Your task to perform on an android device: Search for hotels in Tokyo Image 0: 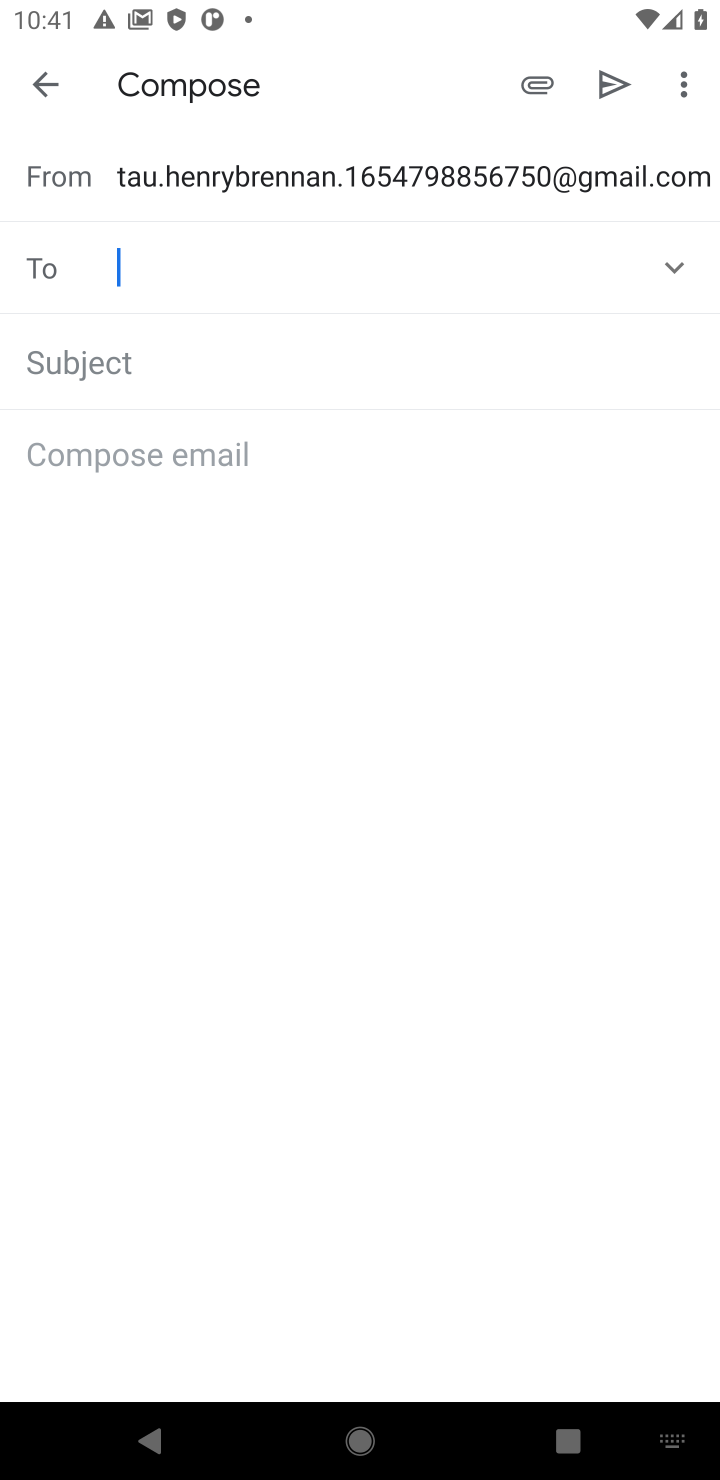
Step 0: press home button
Your task to perform on an android device: Search for hotels in Tokyo Image 1: 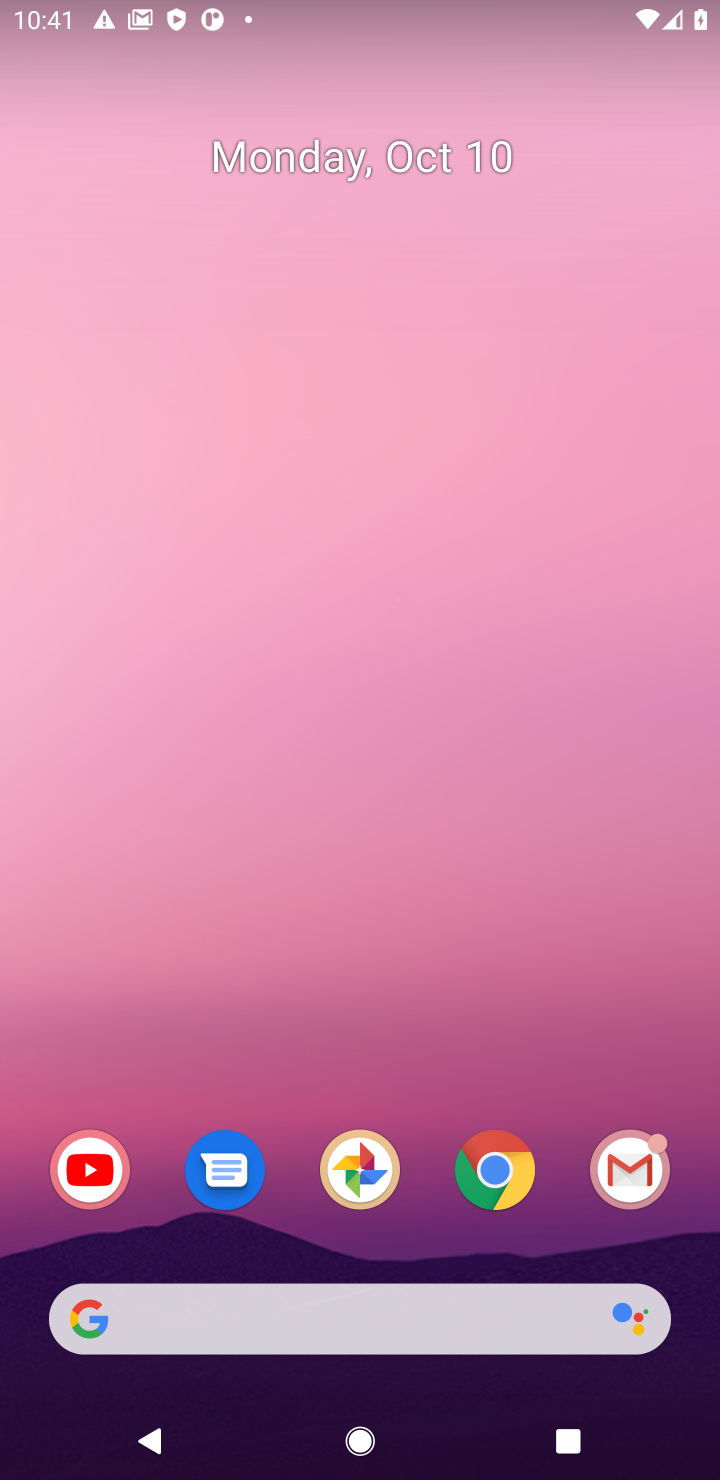
Step 1: drag from (412, 899) to (437, 32)
Your task to perform on an android device: Search for hotels in Tokyo Image 2: 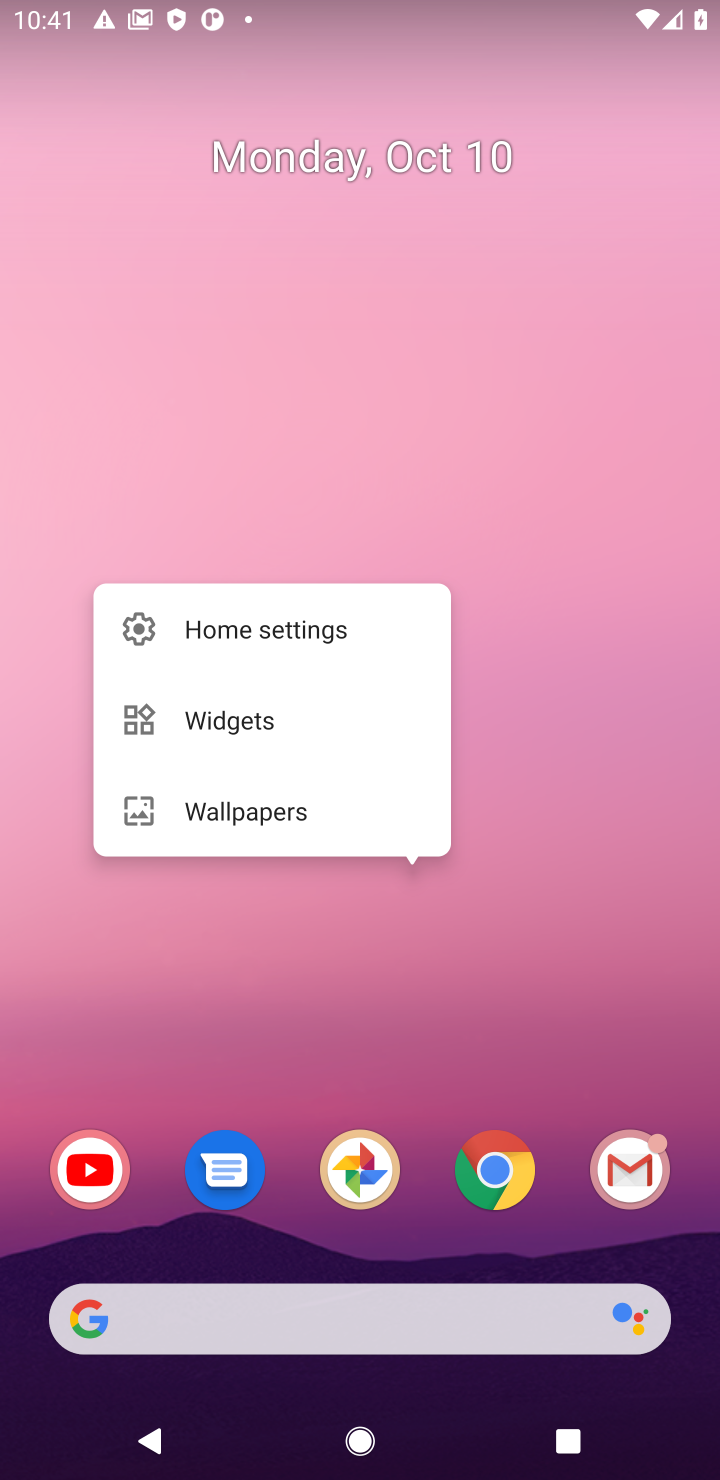
Step 2: click (491, 1201)
Your task to perform on an android device: Search for hotels in Tokyo Image 3: 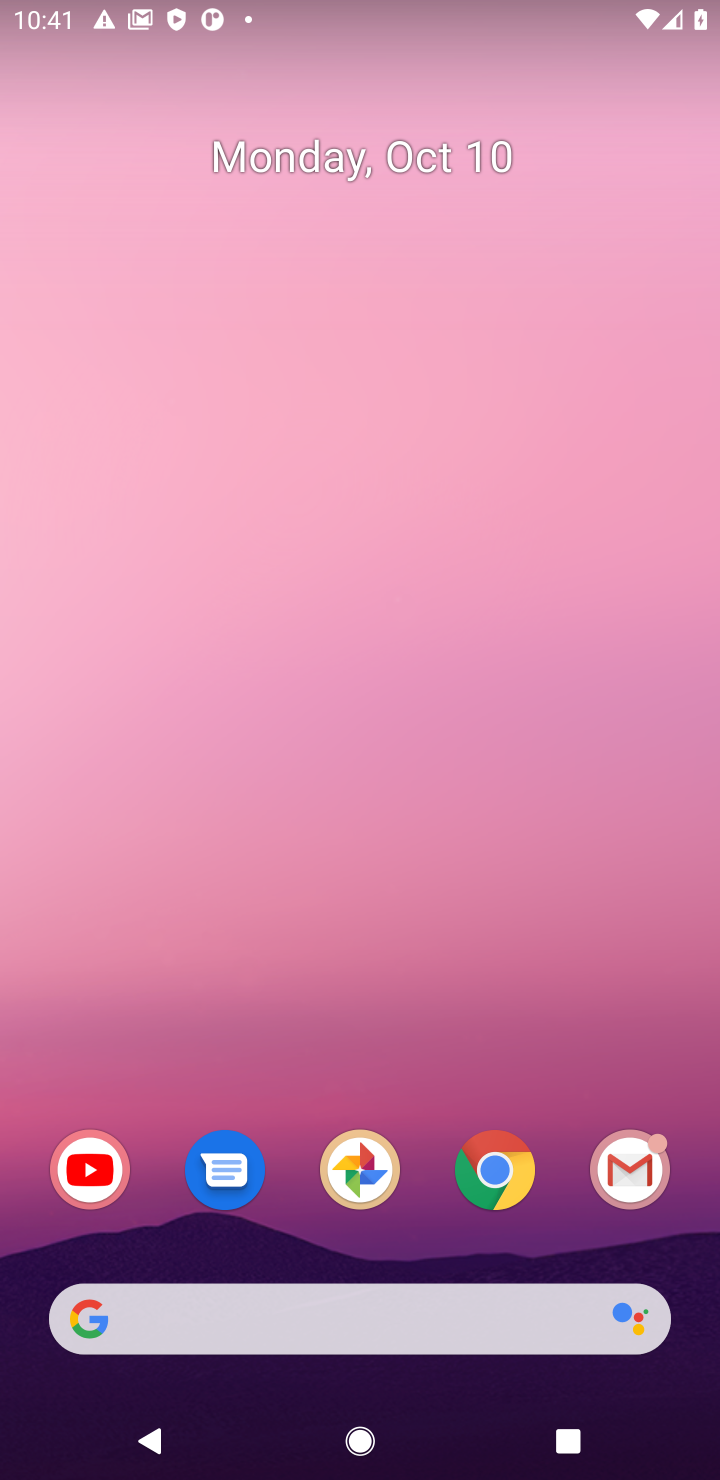
Step 3: click (492, 1202)
Your task to perform on an android device: Search for hotels in Tokyo Image 4: 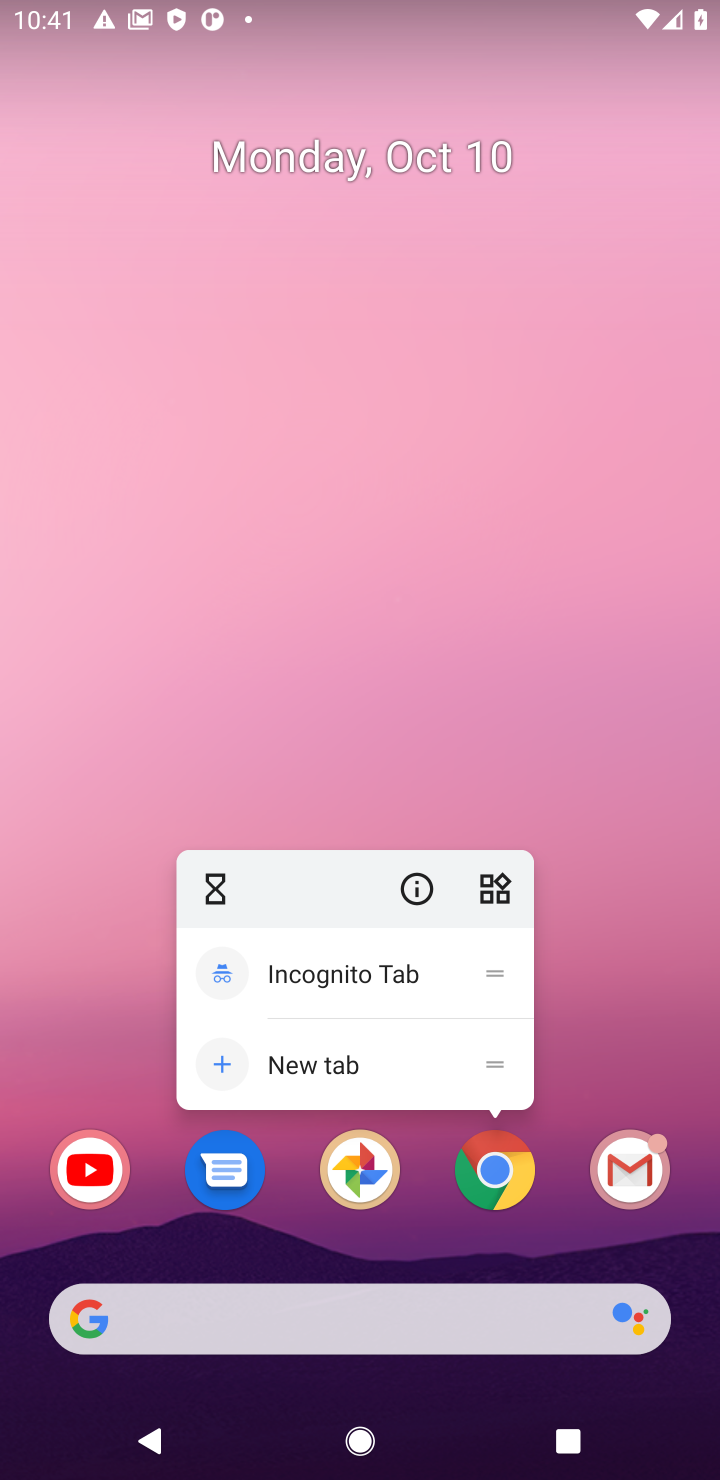
Step 4: click (482, 1191)
Your task to perform on an android device: Search for hotels in Tokyo Image 5: 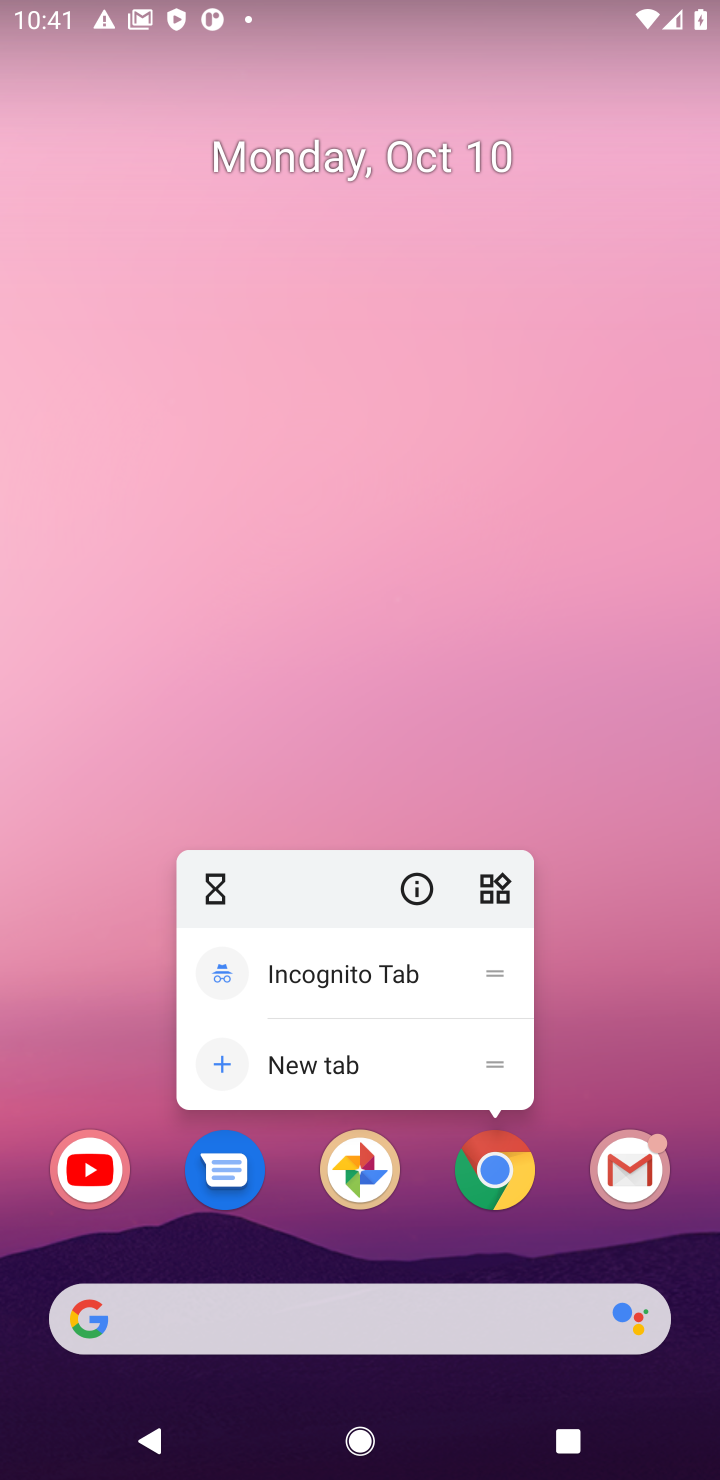
Step 5: click (482, 1191)
Your task to perform on an android device: Search for hotels in Tokyo Image 6: 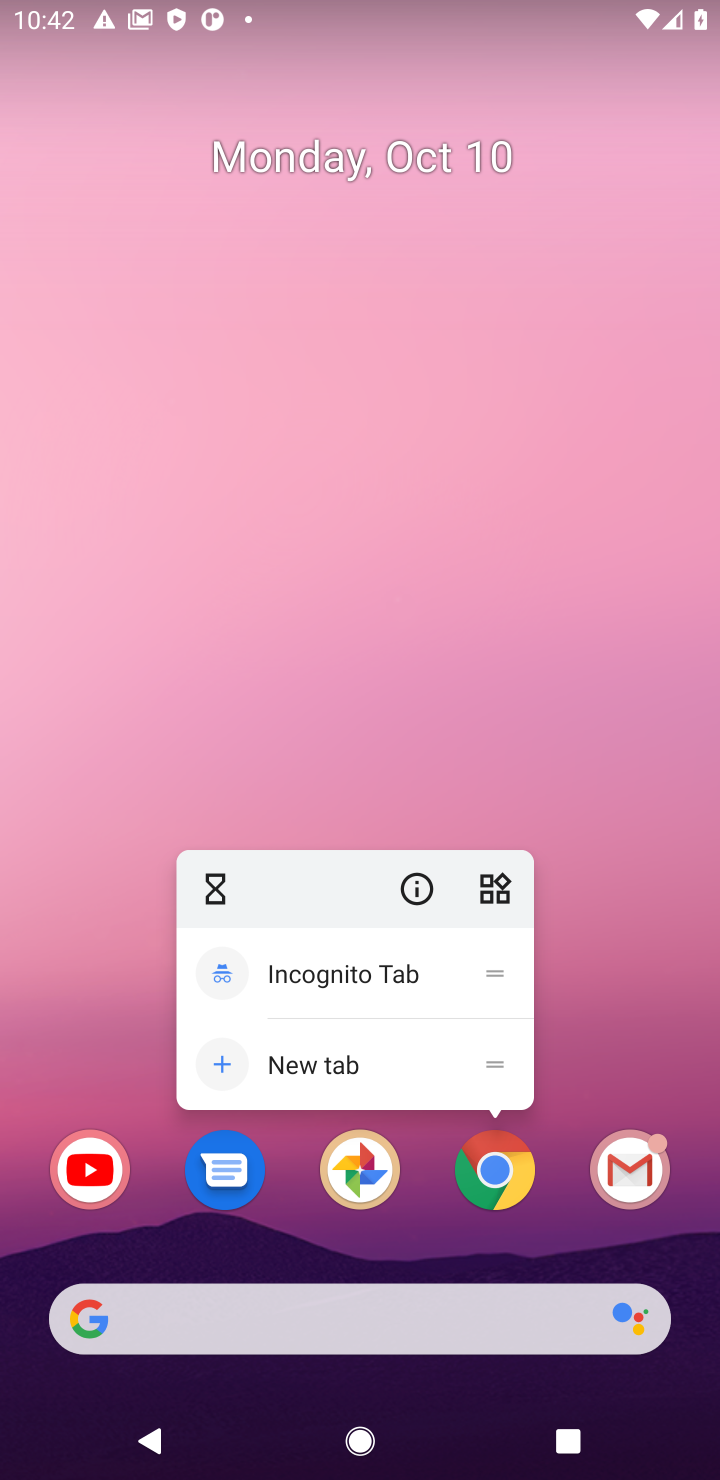
Step 6: click (482, 1191)
Your task to perform on an android device: Search for hotels in Tokyo Image 7: 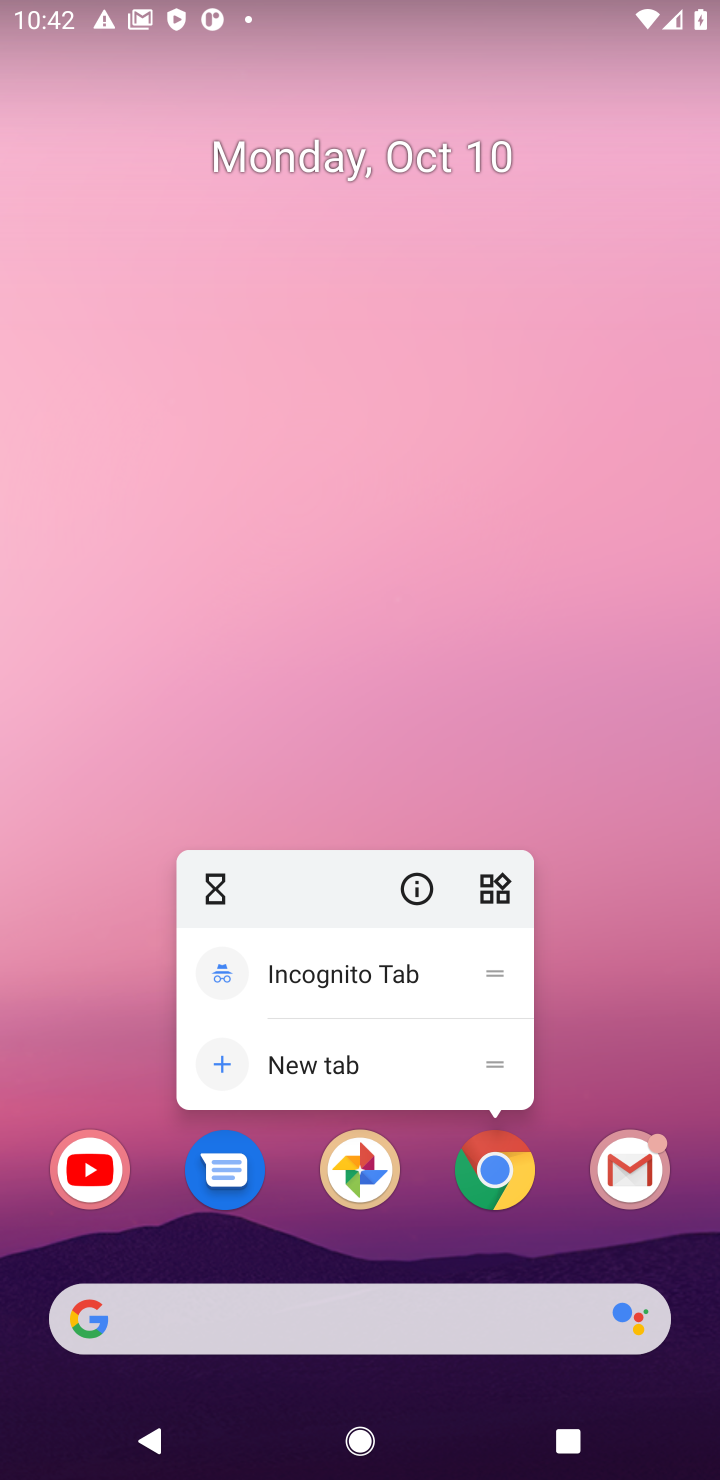
Step 7: click (482, 1191)
Your task to perform on an android device: Search for hotels in Tokyo Image 8: 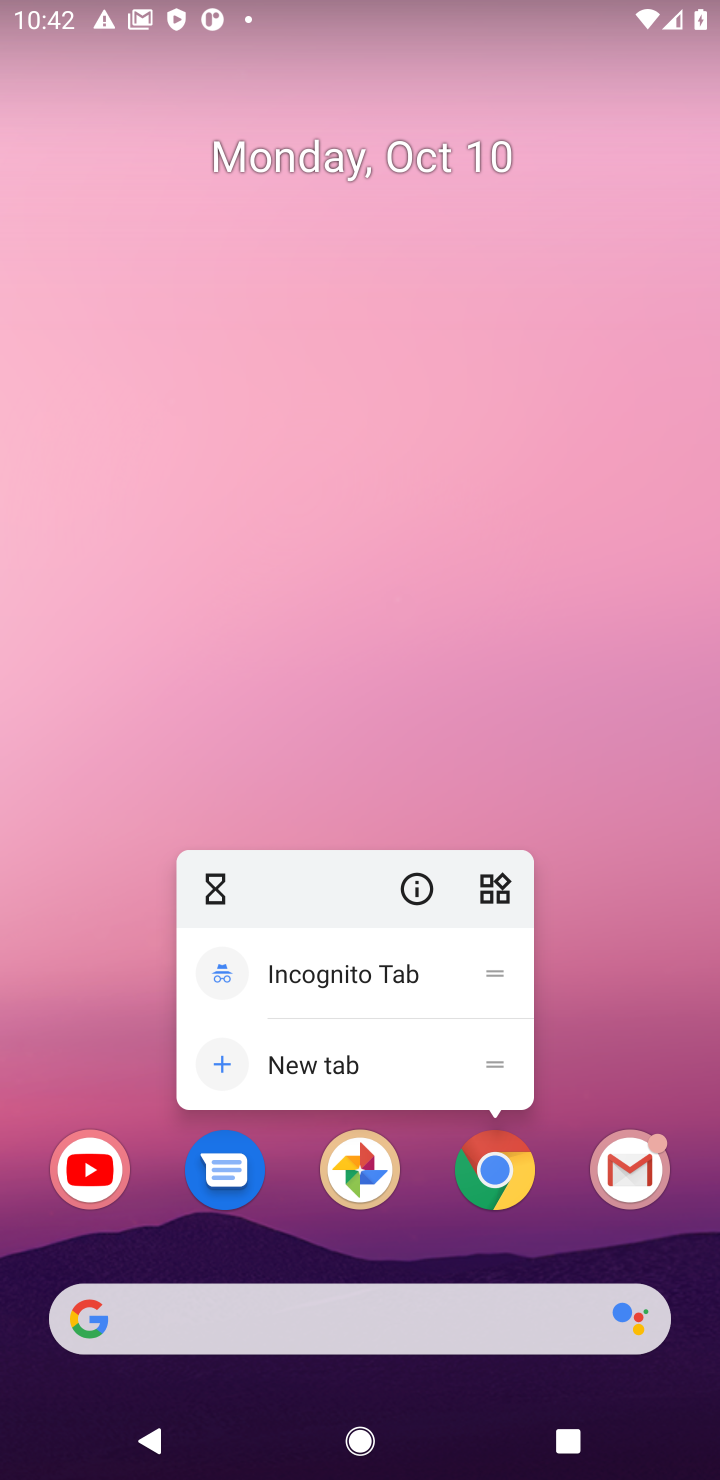
Step 8: click (482, 1191)
Your task to perform on an android device: Search for hotels in Tokyo Image 9: 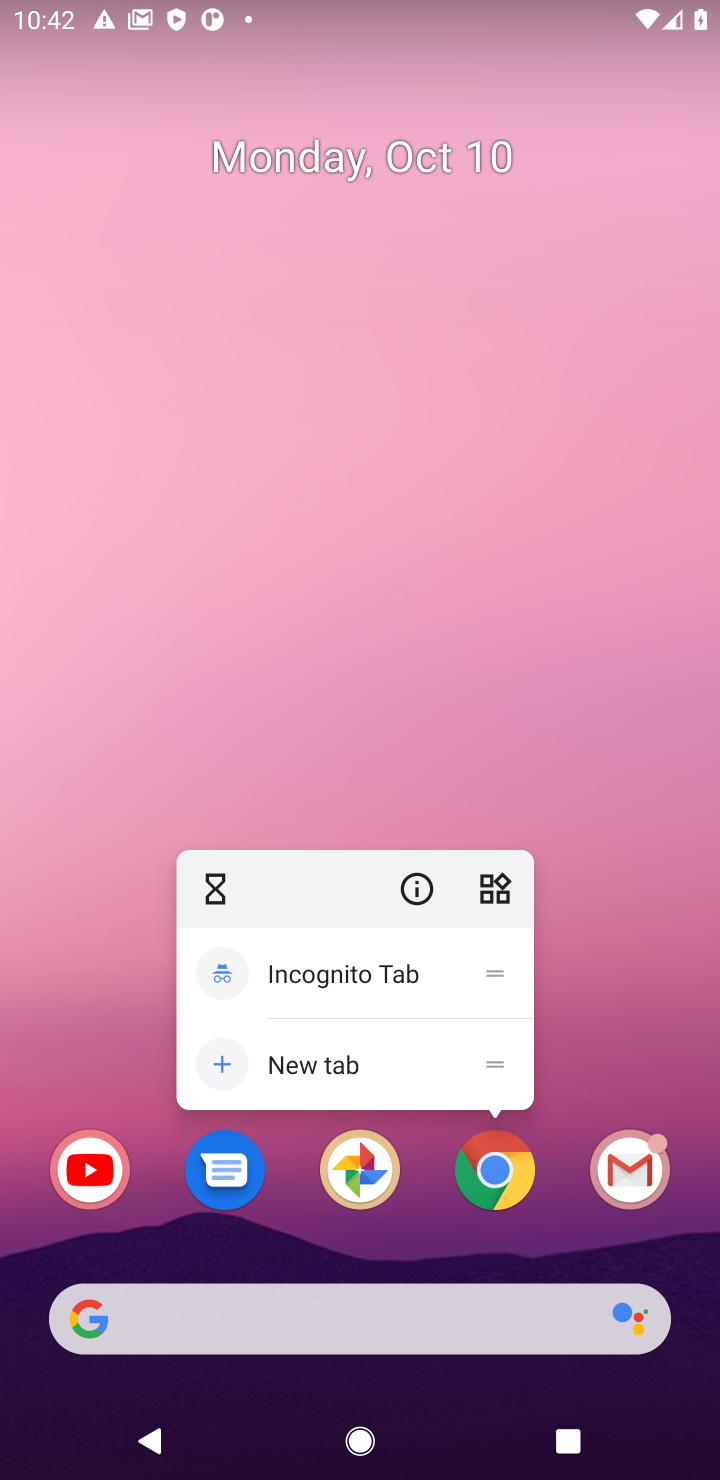
Step 9: click (482, 1191)
Your task to perform on an android device: Search for hotels in Tokyo Image 10: 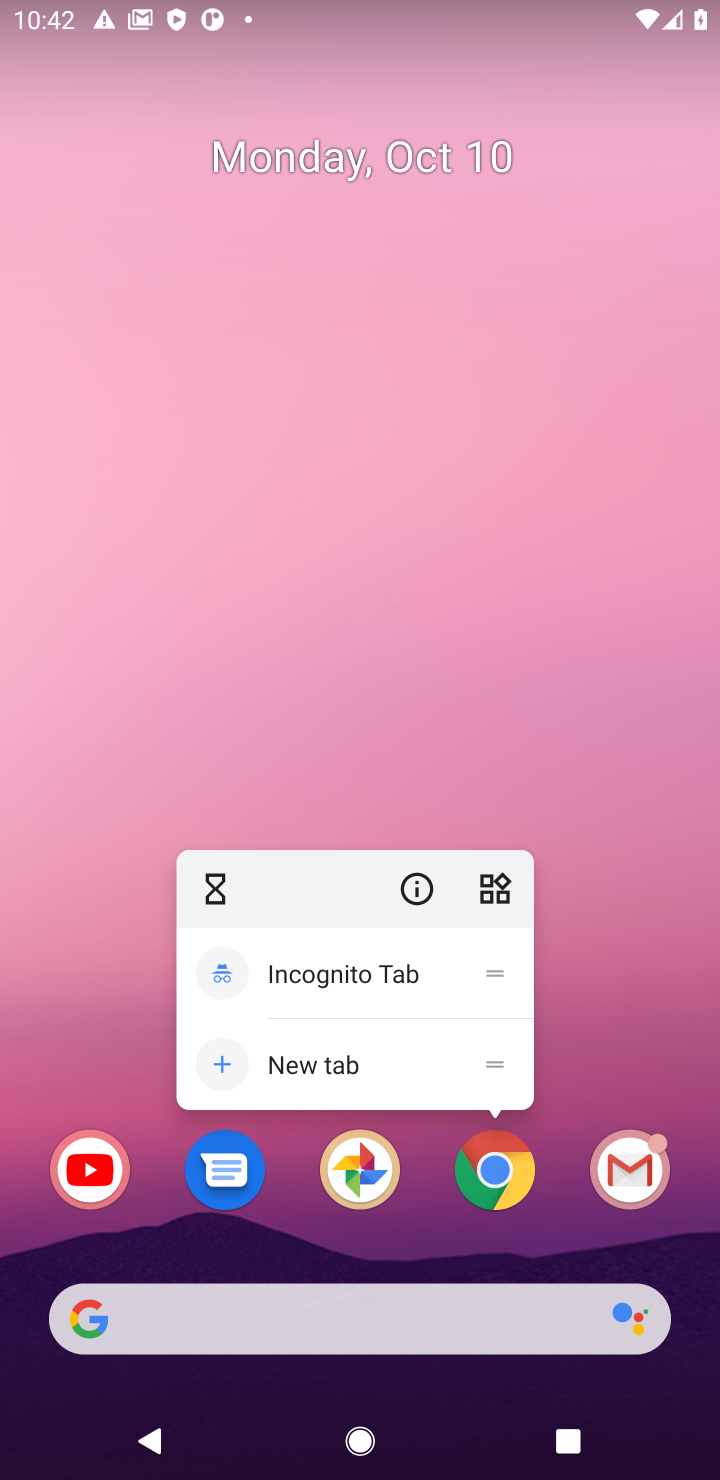
Step 10: click (516, 1176)
Your task to perform on an android device: Search for hotels in Tokyo Image 11: 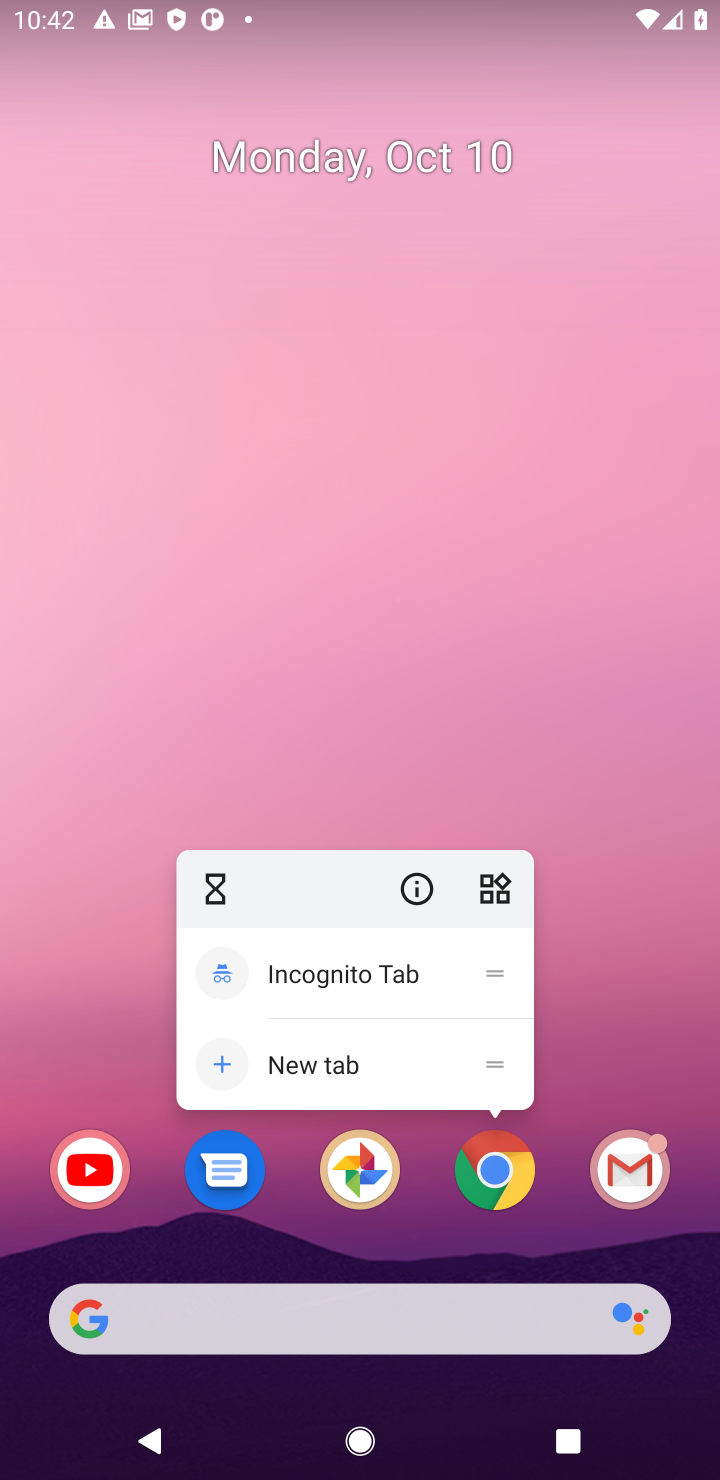
Step 11: click (427, 637)
Your task to perform on an android device: Search for hotels in Tokyo Image 12: 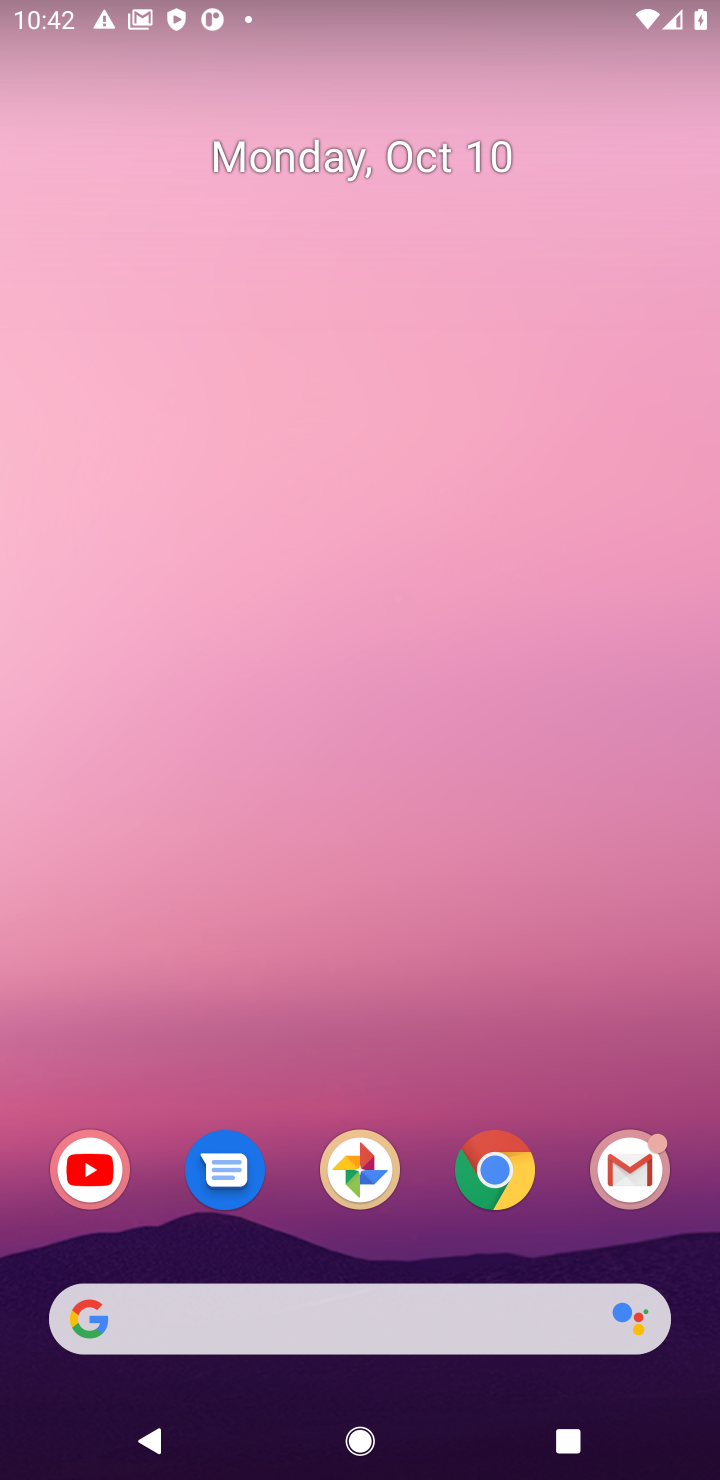
Step 12: drag from (371, 1280) to (373, 297)
Your task to perform on an android device: Search for hotels in Tokyo Image 13: 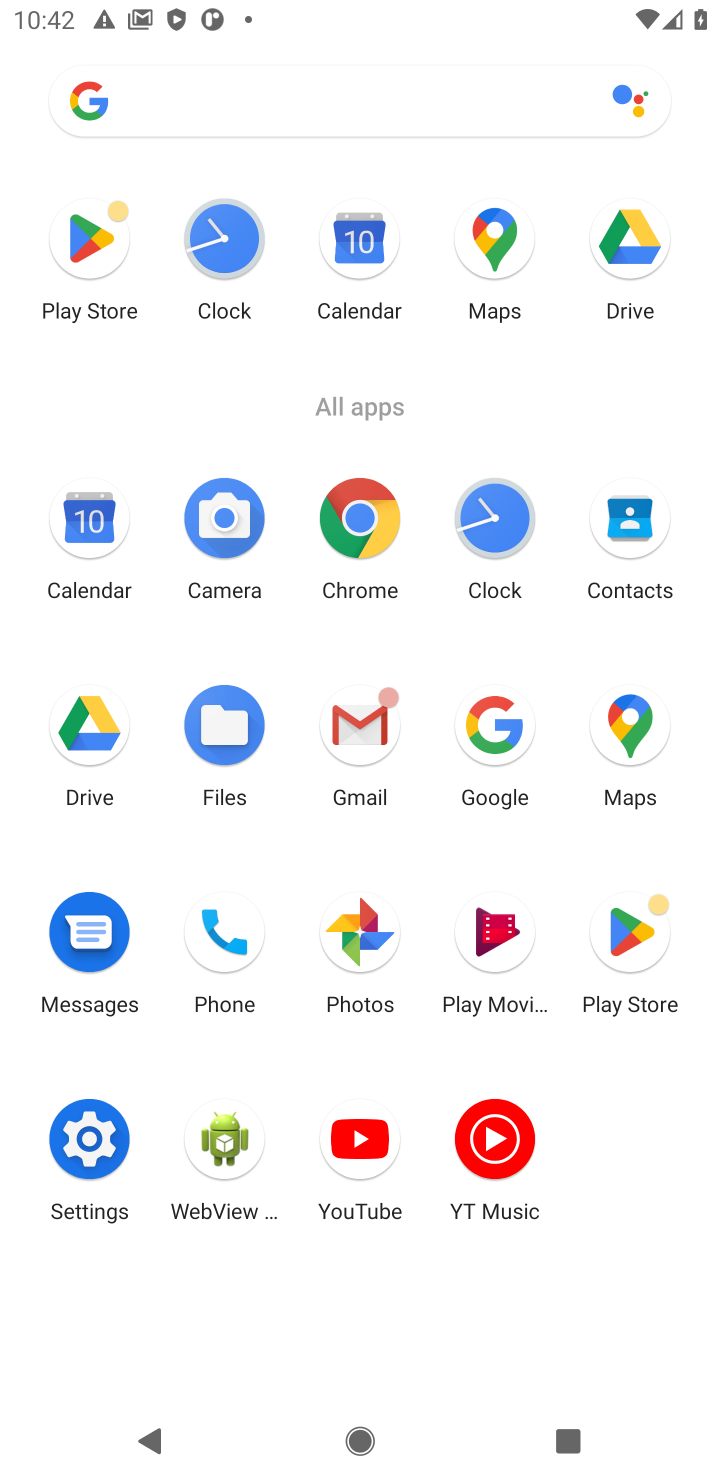
Step 13: click (482, 719)
Your task to perform on an android device: Search for hotels in Tokyo Image 14: 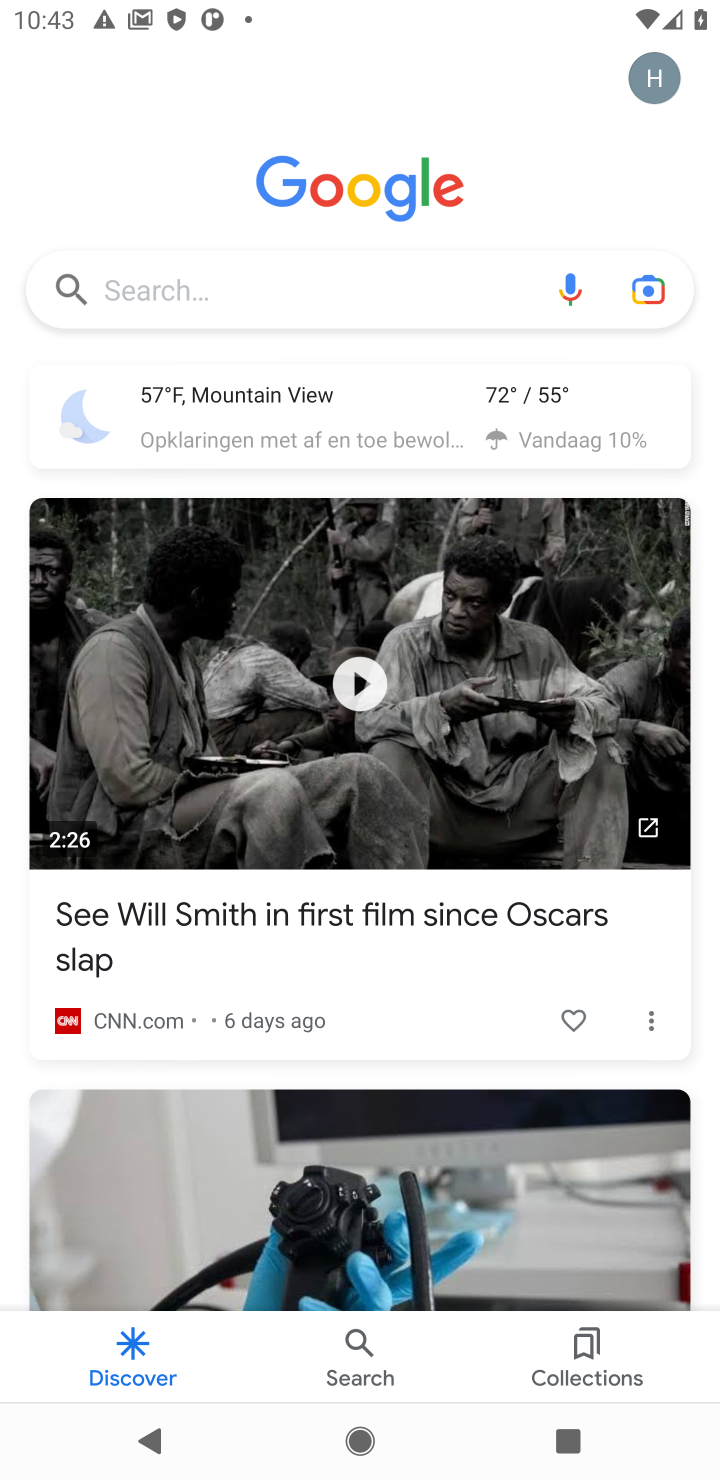
Step 14: click (424, 283)
Your task to perform on an android device: Search for hotels in Tokyo Image 15: 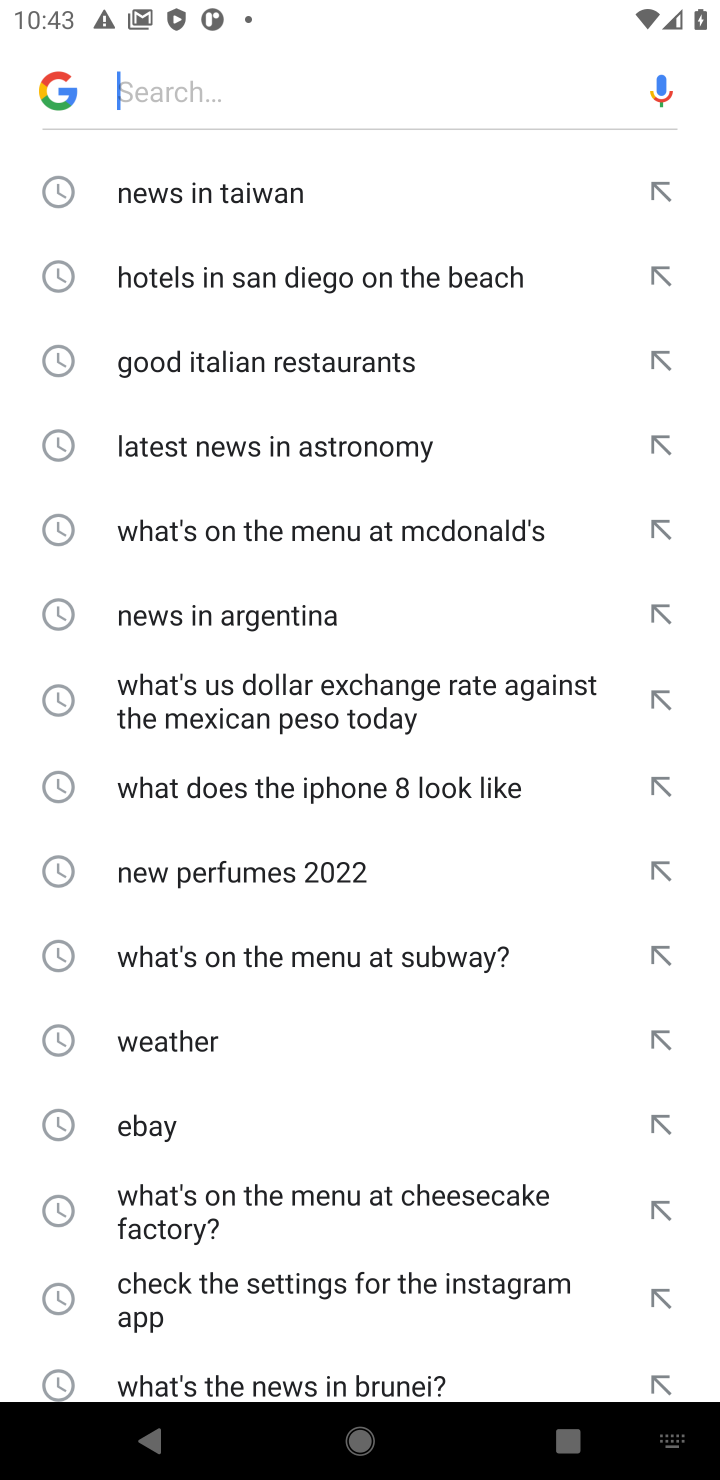
Step 15: type "hotels in Tokyo"
Your task to perform on an android device: Search for hotels in Tokyo Image 16: 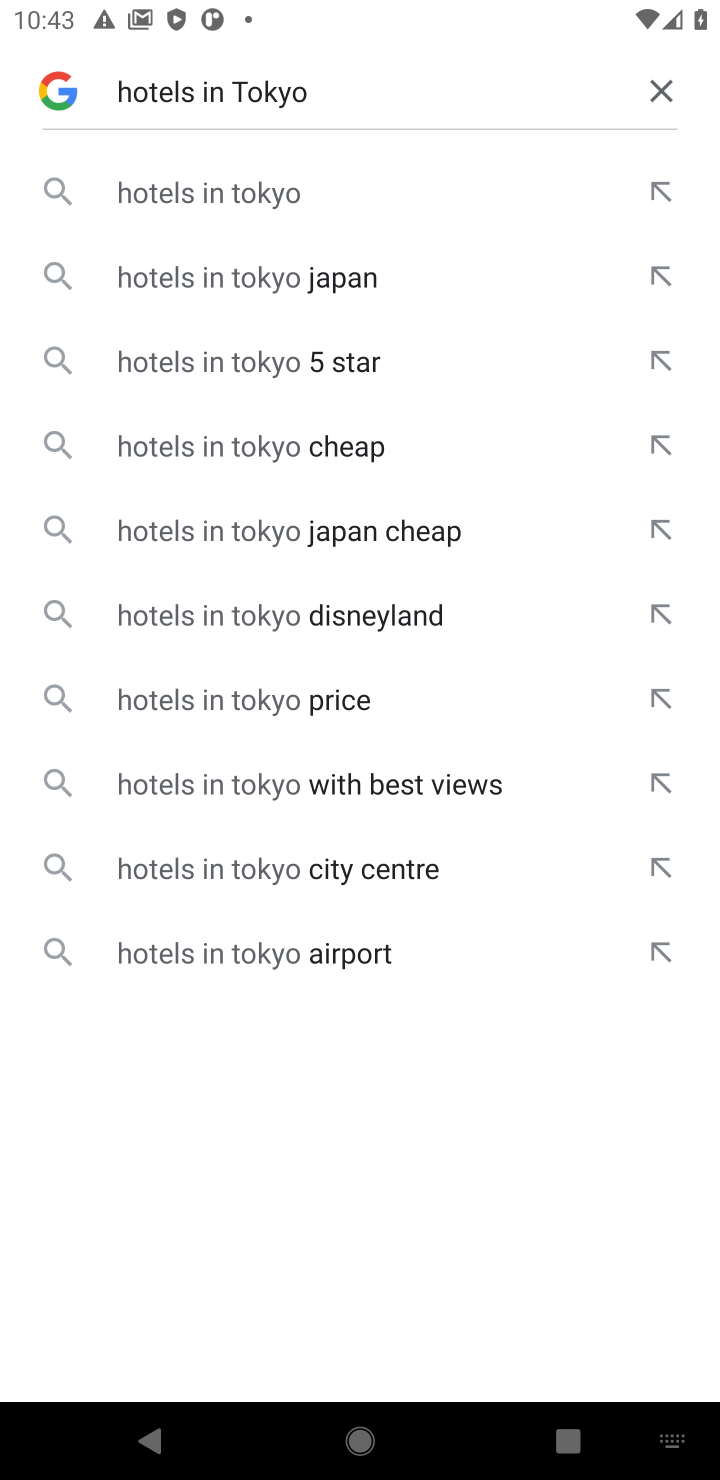
Step 16: click (276, 195)
Your task to perform on an android device: Search for hotels in Tokyo Image 17: 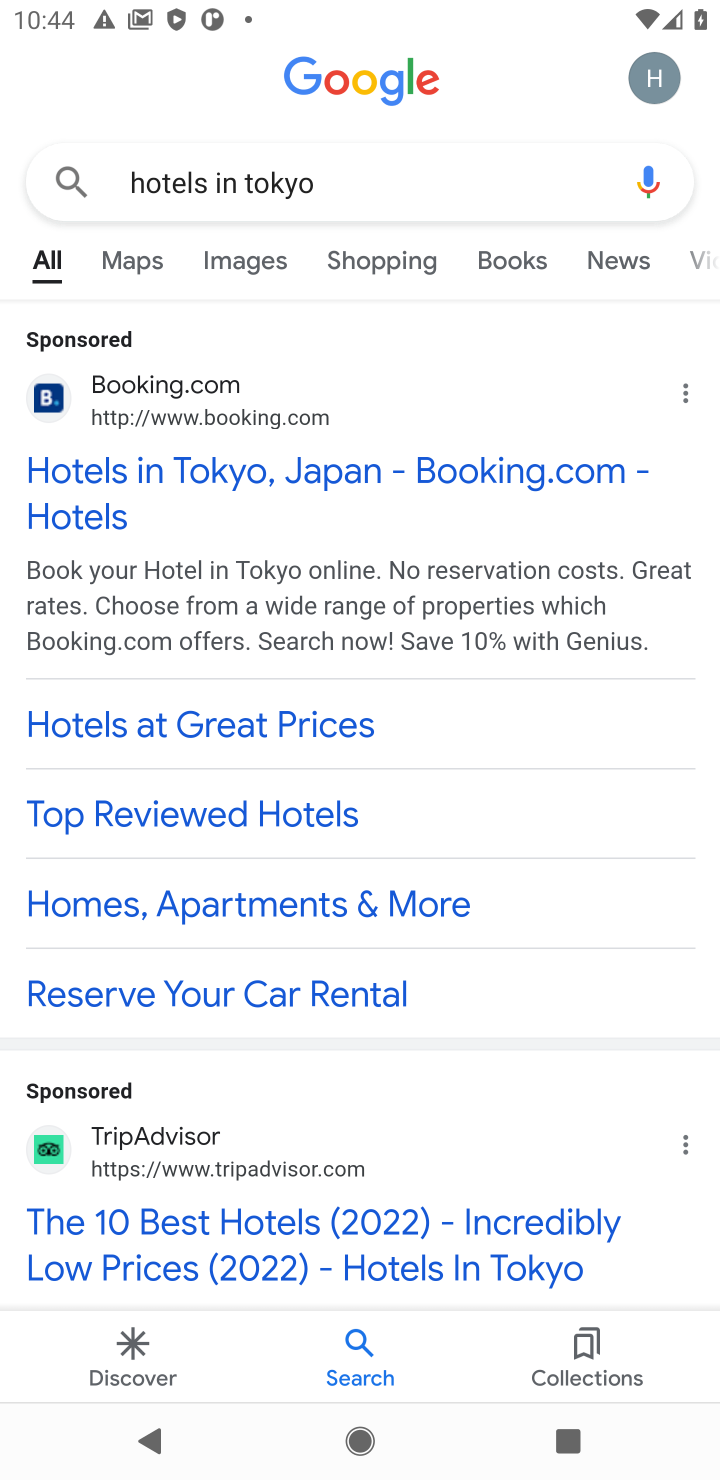
Step 17: task complete